Your task to perform on an android device: Open display settings Image 0: 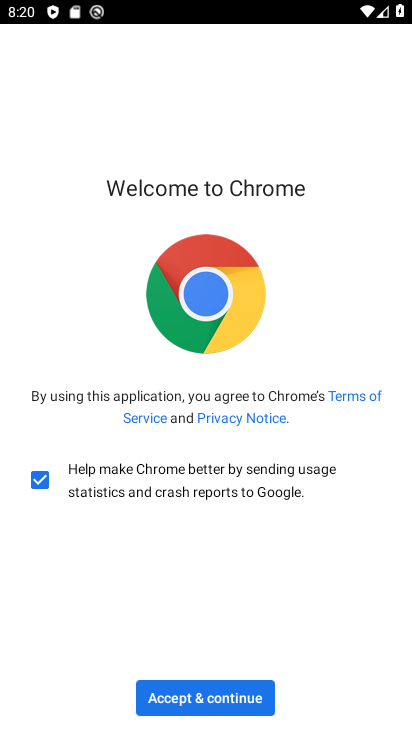
Step 0: press home button
Your task to perform on an android device: Open display settings Image 1: 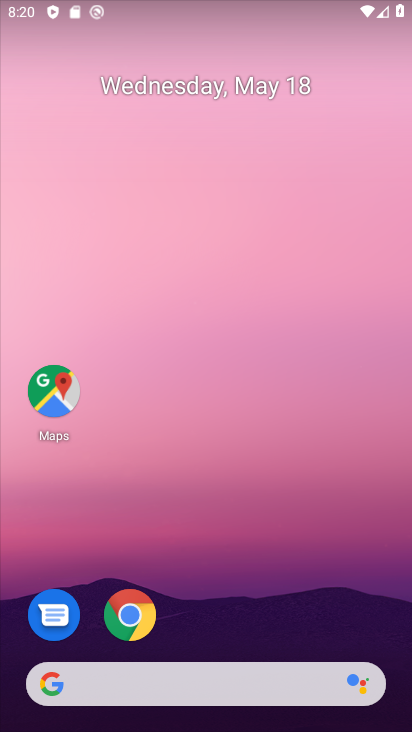
Step 1: drag from (198, 675) to (254, 276)
Your task to perform on an android device: Open display settings Image 2: 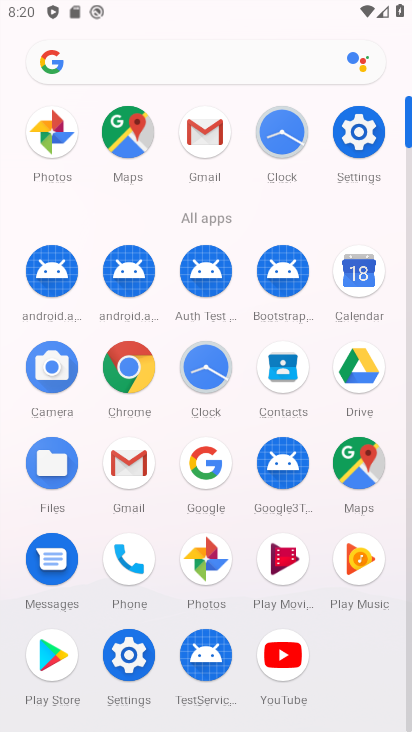
Step 2: click (360, 146)
Your task to perform on an android device: Open display settings Image 3: 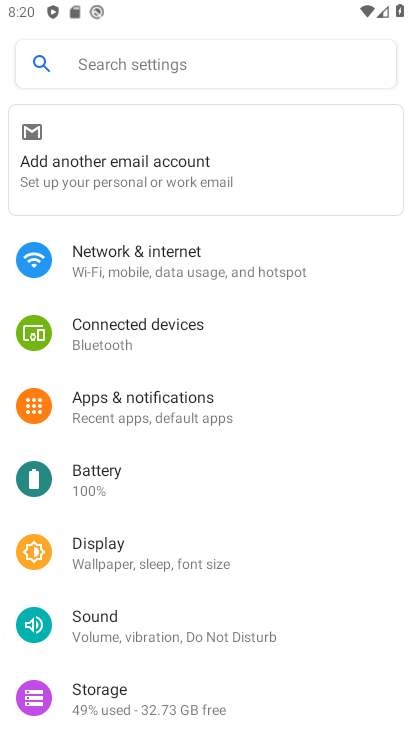
Step 3: click (132, 559)
Your task to perform on an android device: Open display settings Image 4: 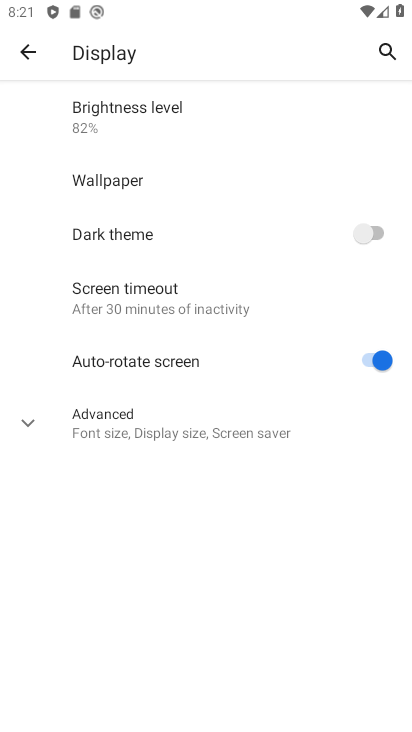
Step 4: task complete